Your task to perform on an android device: find photos in the google photos app Image 0: 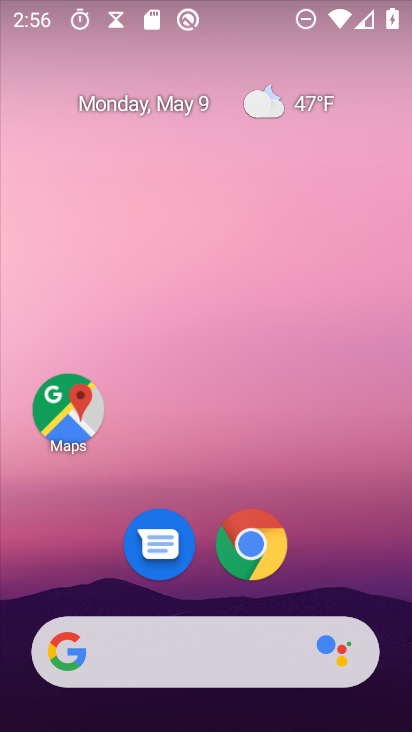
Step 0: drag from (366, 495) to (335, 41)
Your task to perform on an android device: find photos in the google photos app Image 1: 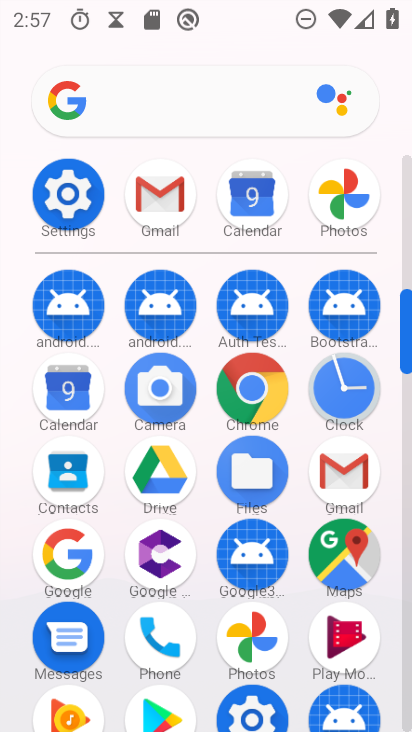
Step 1: click (337, 219)
Your task to perform on an android device: find photos in the google photos app Image 2: 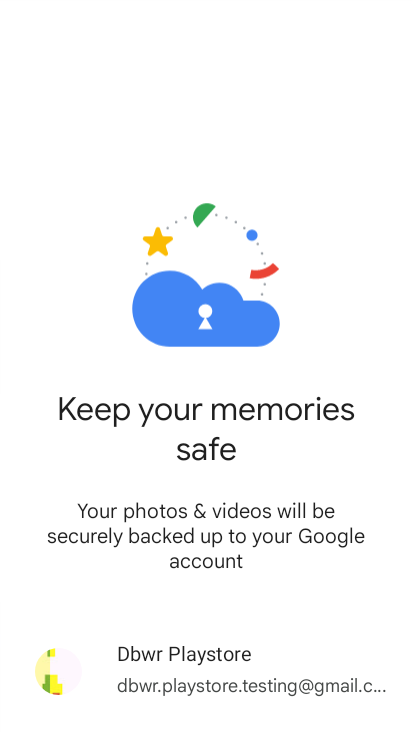
Step 2: press home button
Your task to perform on an android device: find photos in the google photos app Image 3: 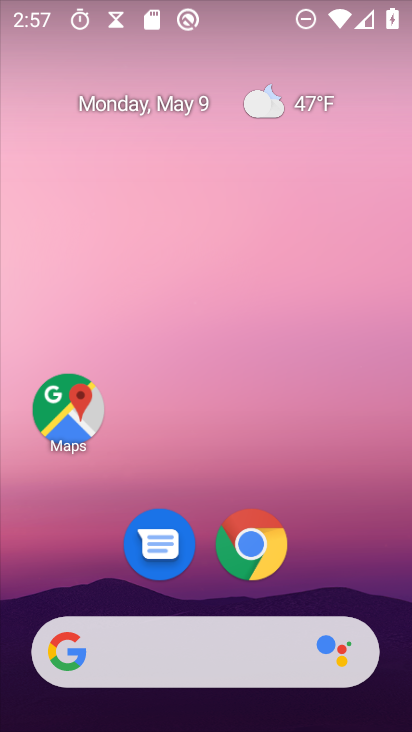
Step 3: drag from (384, 567) to (284, 58)
Your task to perform on an android device: find photos in the google photos app Image 4: 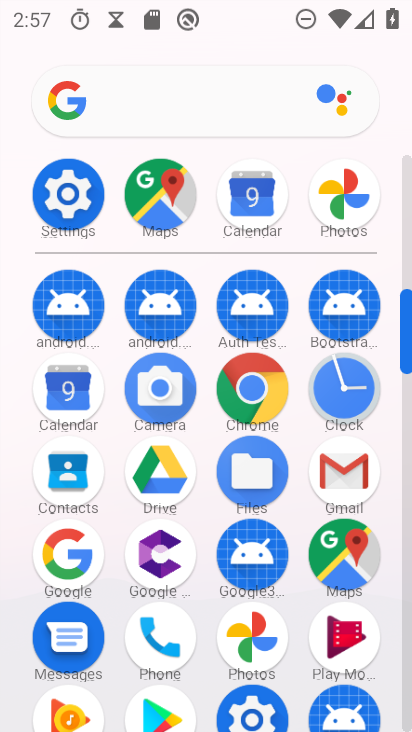
Step 4: click (327, 205)
Your task to perform on an android device: find photos in the google photos app Image 5: 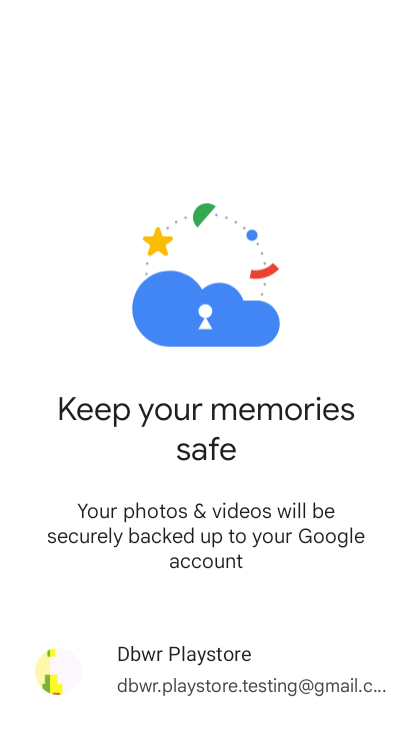
Step 5: task complete